Your task to perform on an android device: turn on airplane mode Image 0: 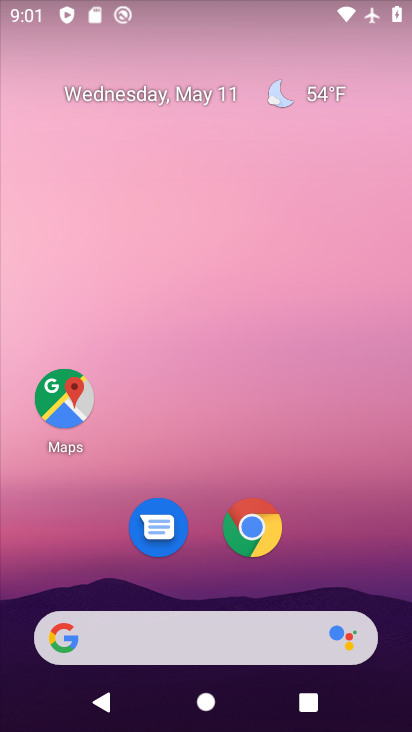
Step 0: drag from (358, 551) to (367, 125)
Your task to perform on an android device: turn on airplane mode Image 1: 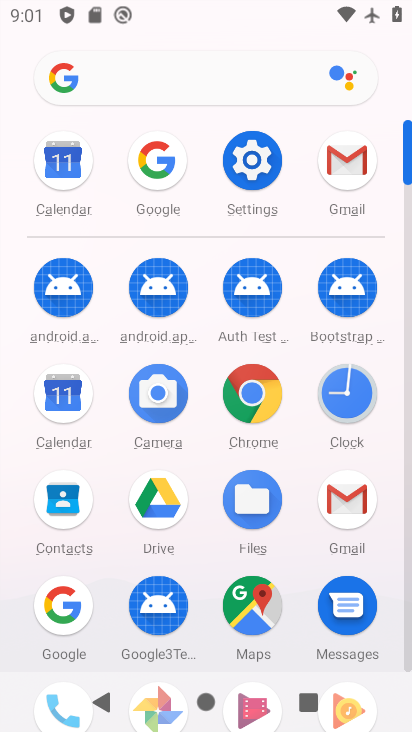
Step 1: click (249, 166)
Your task to perform on an android device: turn on airplane mode Image 2: 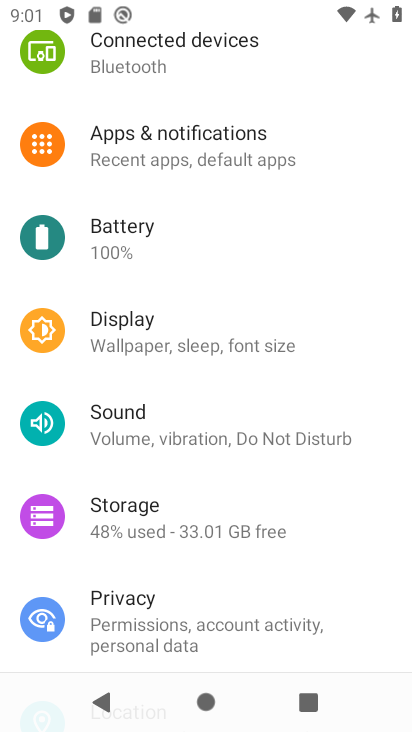
Step 2: drag from (254, 182) to (252, 571)
Your task to perform on an android device: turn on airplane mode Image 3: 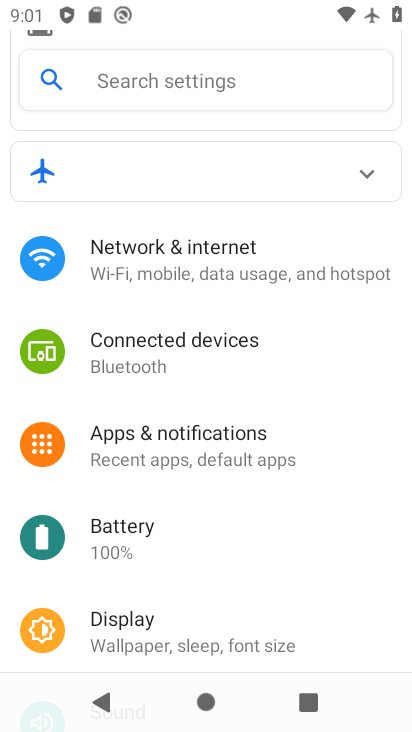
Step 3: click (229, 268)
Your task to perform on an android device: turn on airplane mode Image 4: 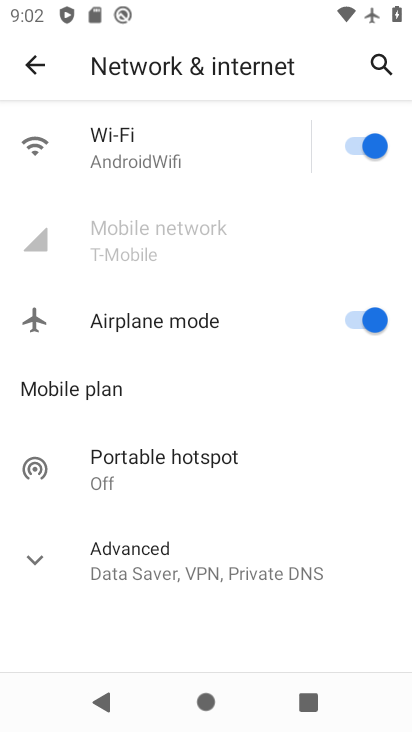
Step 4: task complete